Your task to perform on an android device: Open wifi settings Image 0: 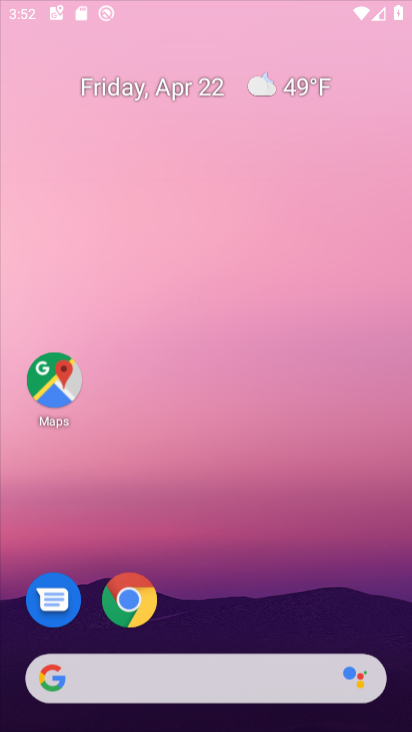
Step 0: drag from (163, 625) to (288, 88)
Your task to perform on an android device: Open wifi settings Image 1: 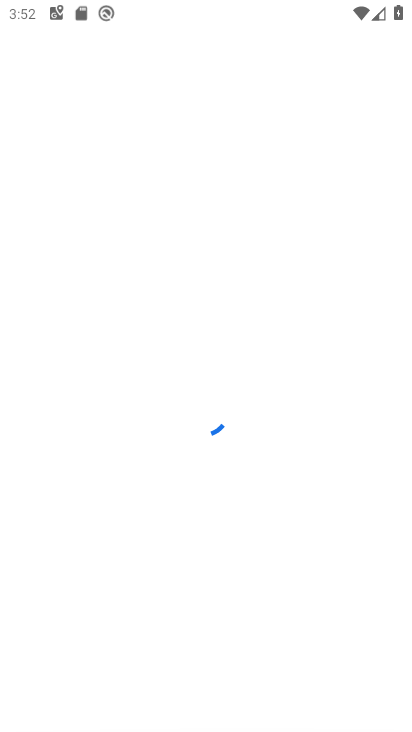
Step 1: press home button
Your task to perform on an android device: Open wifi settings Image 2: 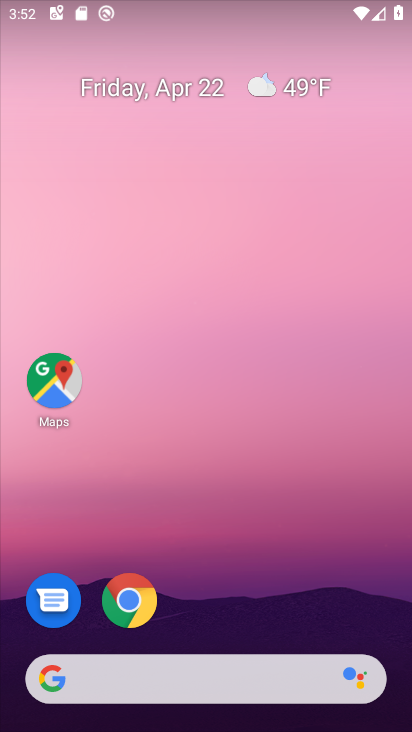
Step 2: drag from (204, 583) to (304, 76)
Your task to perform on an android device: Open wifi settings Image 3: 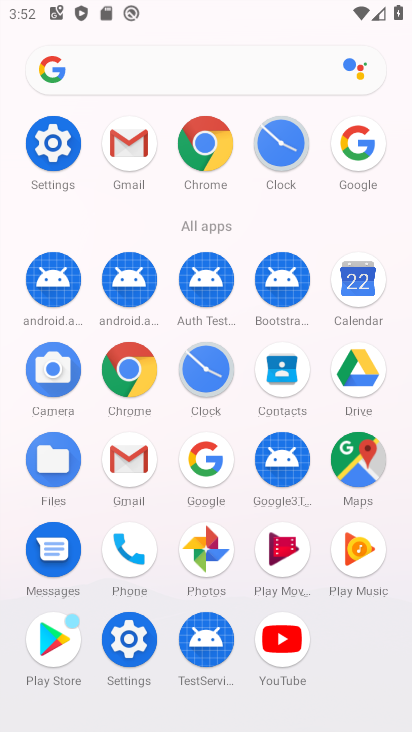
Step 3: click (129, 651)
Your task to perform on an android device: Open wifi settings Image 4: 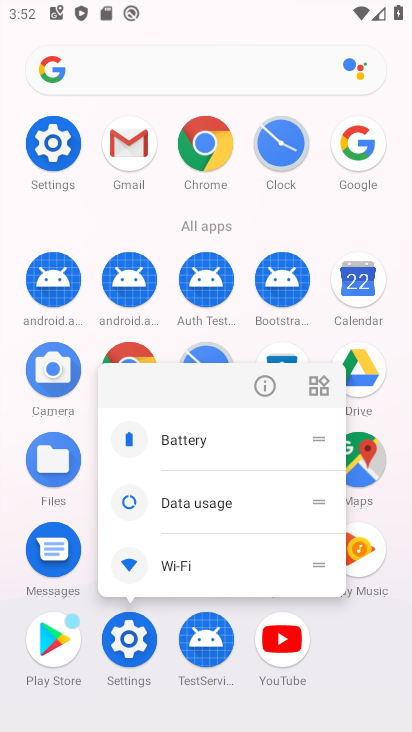
Step 4: click (130, 641)
Your task to perform on an android device: Open wifi settings Image 5: 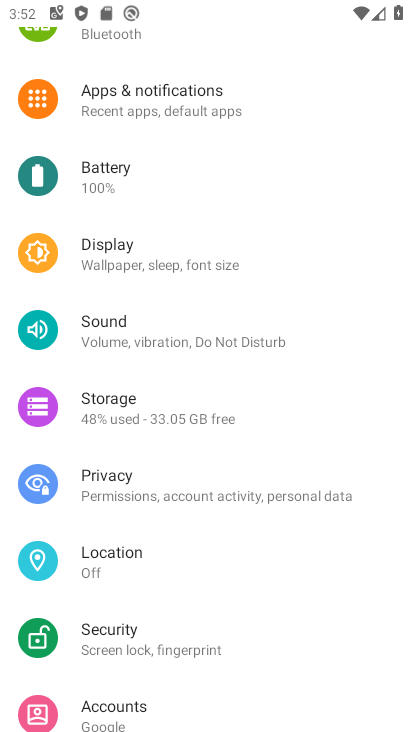
Step 5: drag from (245, 141) to (187, 457)
Your task to perform on an android device: Open wifi settings Image 6: 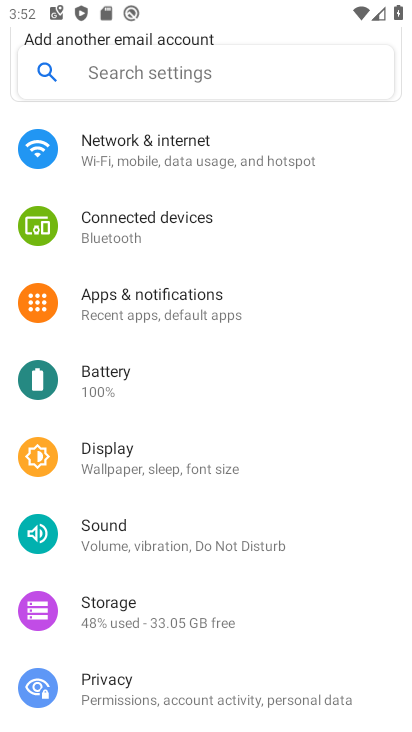
Step 6: click (207, 163)
Your task to perform on an android device: Open wifi settings Image 7: 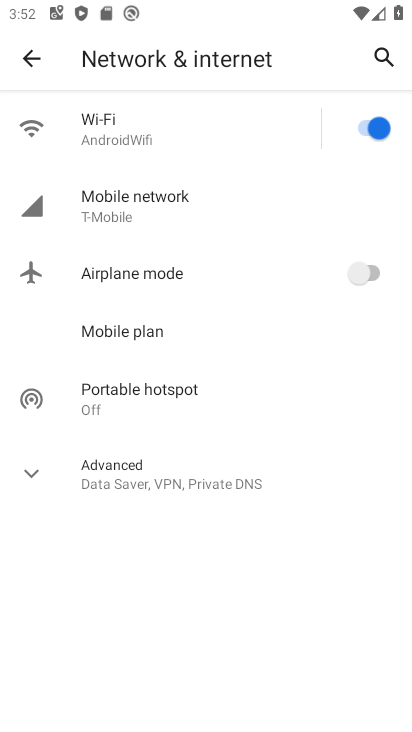
Step 7: click (204, 156)
Your task to perform on an android device: Open wifi settings Image 8: 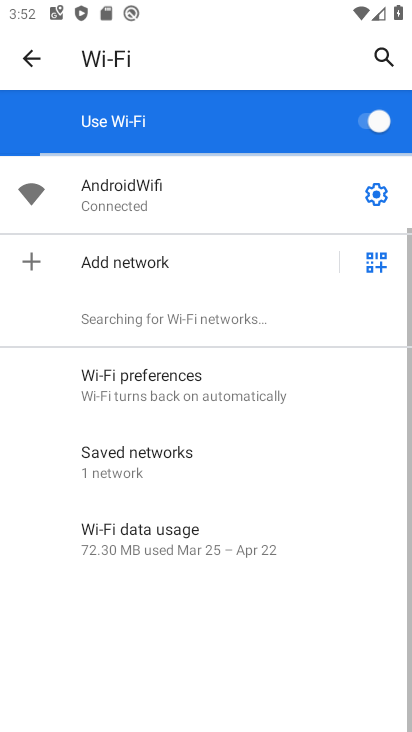
Step 8: task complete